Your task to perform on an android device: change the clock style Image 0: 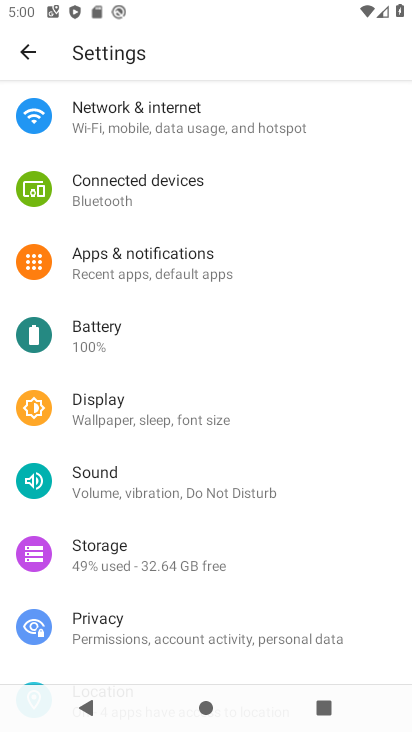
Step 0: press back button
Your task to perform on an android device: change the clock style Image 1: 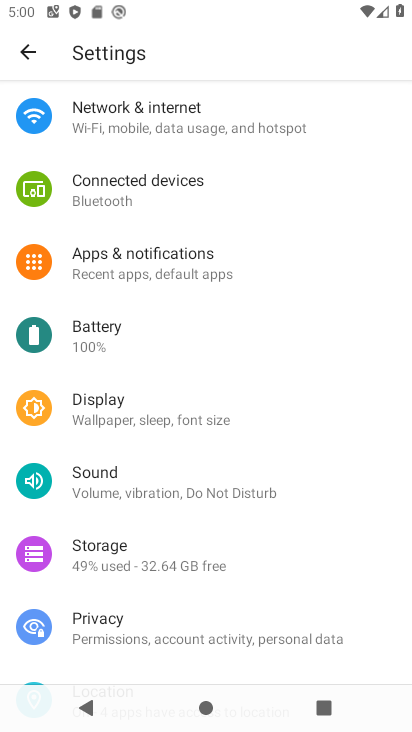
Step 1: press back button
Your task to perform on an android device: change the clock style Image 2: 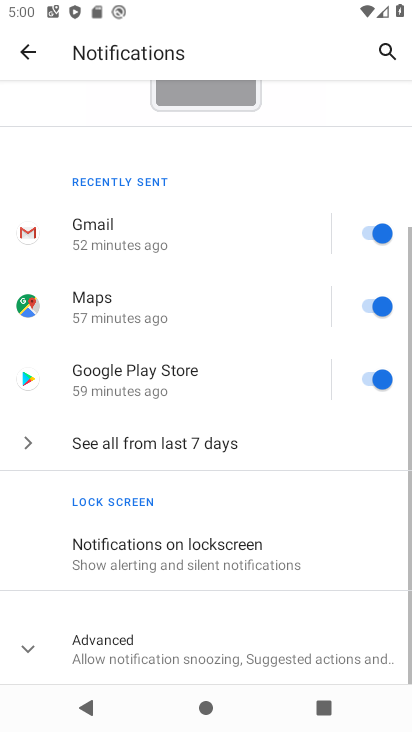
Step 2: press back button
Your task to perform on an android device: change the clock style Image 3: 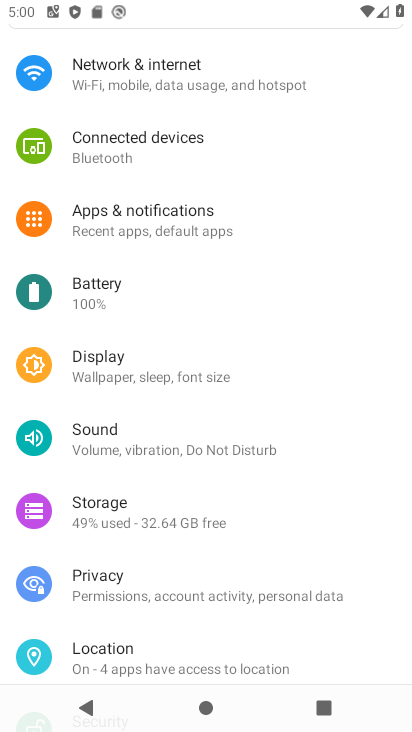
Step 3: press home button
Your task to perform on an android device: change the clock style Image 4: 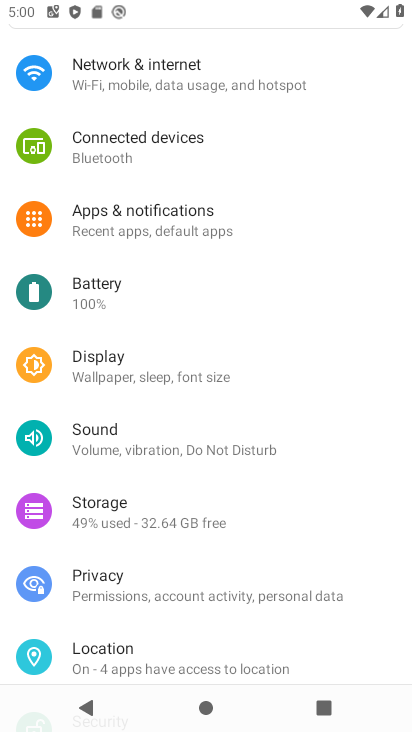
Step 4: press home button
Your task to perform on an android device: change the clock style Image 5: 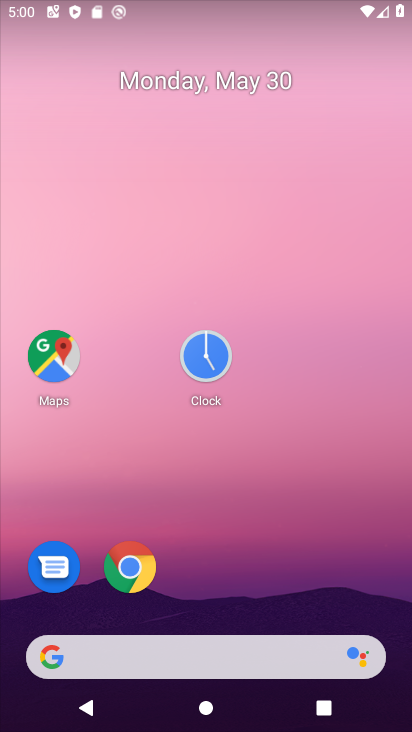
Step 5: drag from (254, 691) to (208, 112)
Your task to perform on an android device: change the clock style Image 6: 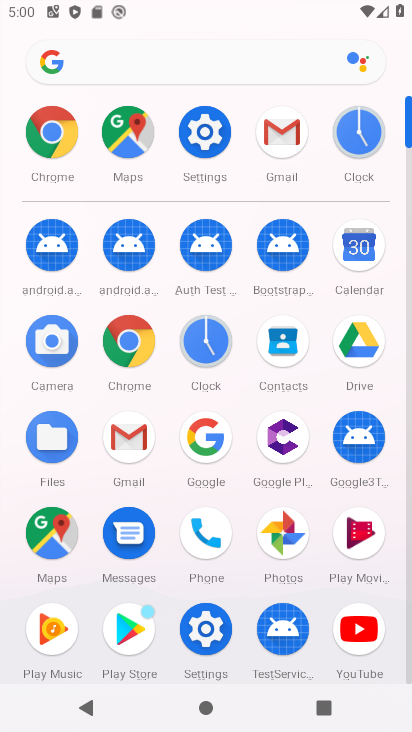
Step 6: click (206, 333)
Your task to perform on an android device: change the clock style Image 7: 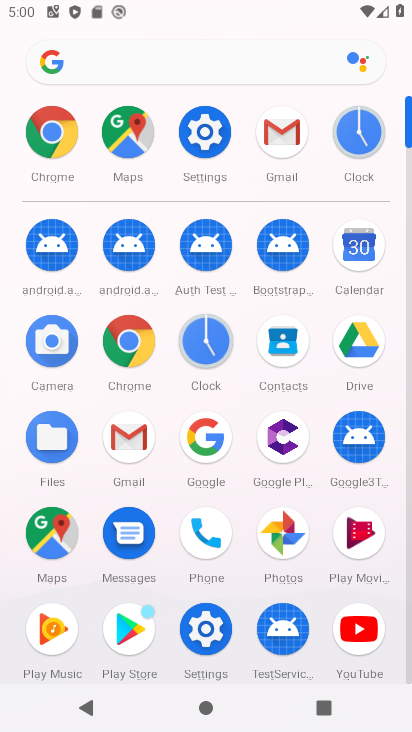
Step 7: click (213, 330)
Your task to perform on an android device: change the clock style Image 8: 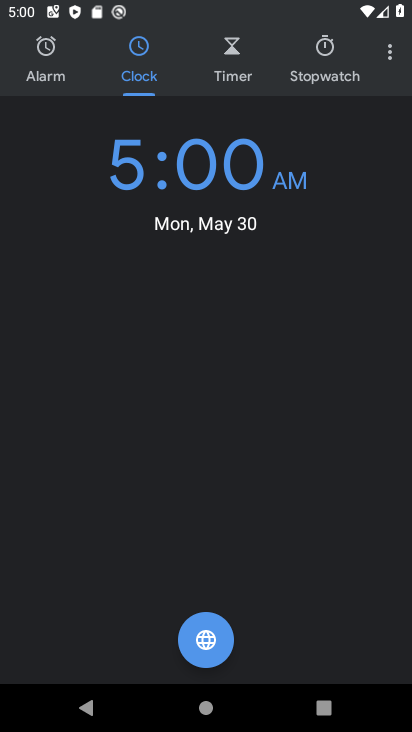
Step 8: click (385, 56)
Your task to perform on an android device: change the clock style Image 9: 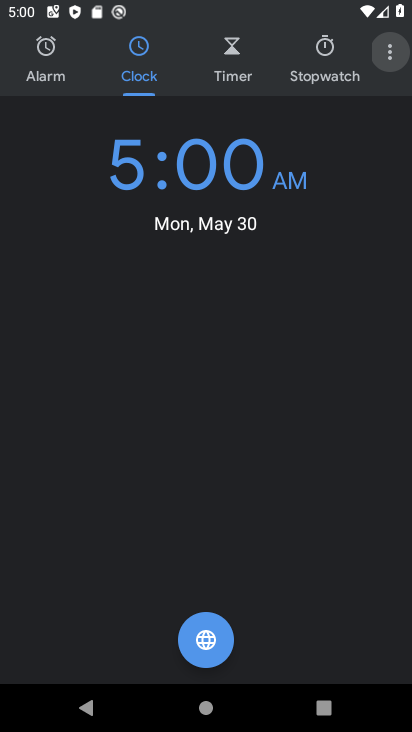
Step 9: drag from (386, 56) to (249, 100)
Your task to perform on an android device: change the clock style Image 10: 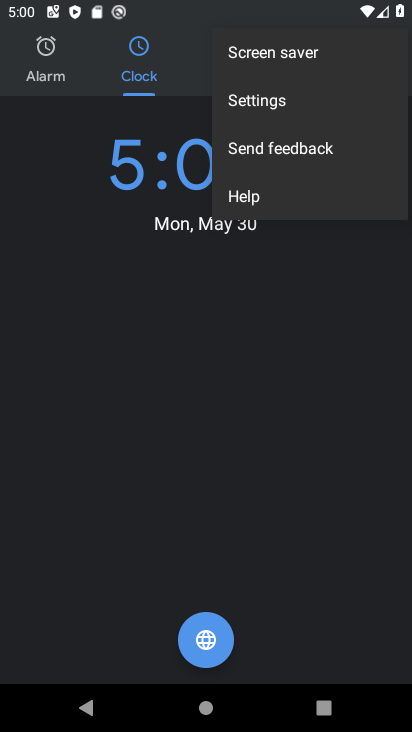
Step 10: click (249, 100)
Your task to perform on an android device: change the clock style Image 11: 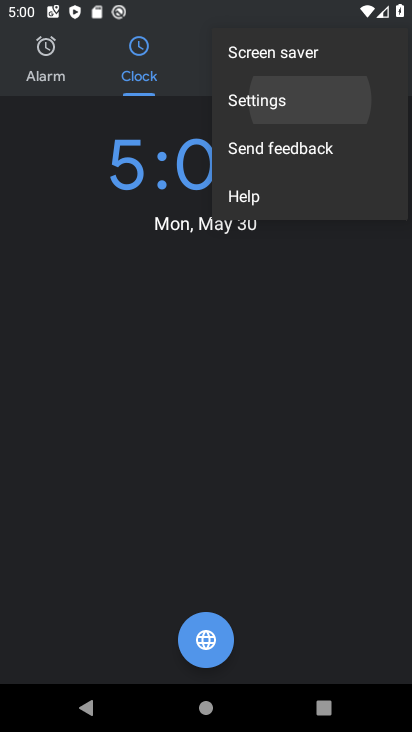
Step 11: click (253, 99)
Your task to perform on an android device: change the clock style Image 12: 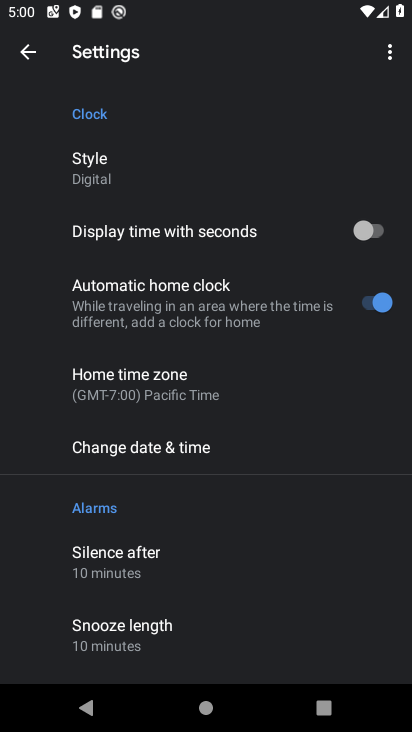
Step 12: click (253, 99)
Your task to perform on an android device: change the clock style Image 13: 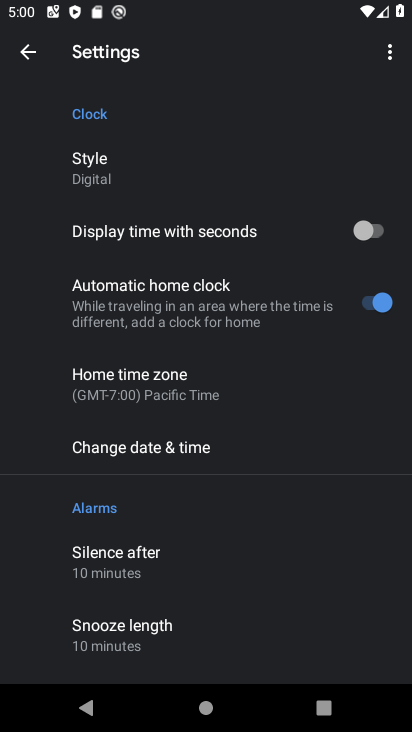
Step 13: click (127, 167)
Your task to perform on an android device: change the clock style Image 14: 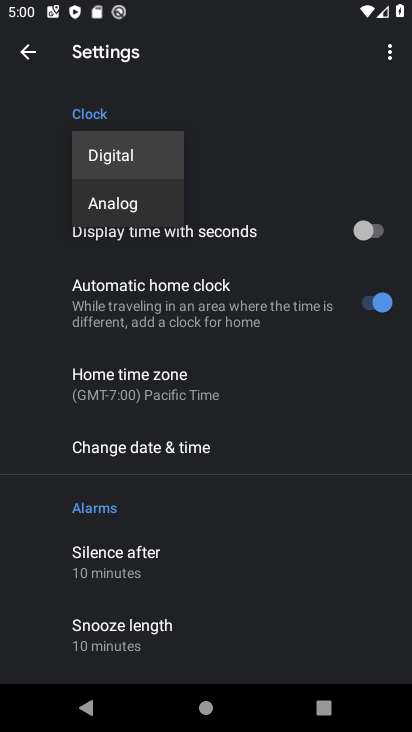
Step 14: click (135, 204)
Your task to perform on an android device: change the clock style Image 15: 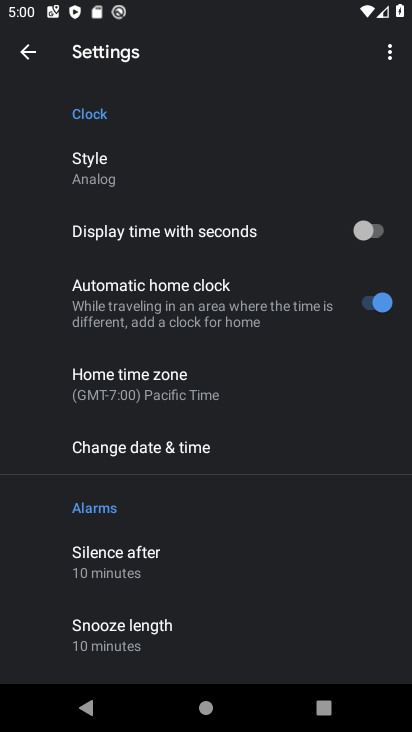
Step 15: task complete